Your task to perform on an android device: change the clock style Image 0: 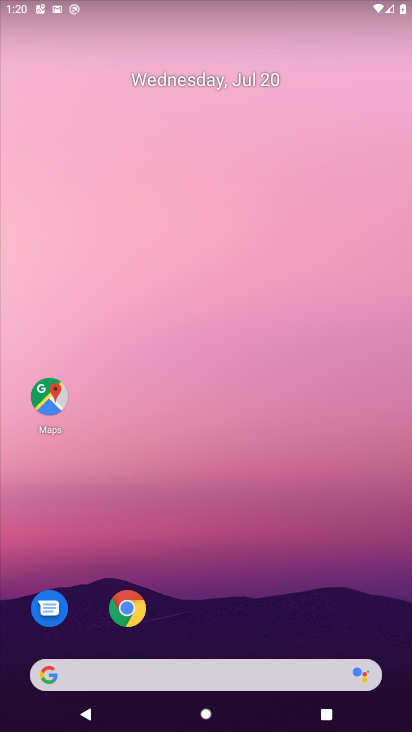
Step 0: drag from (194, 587) to (196, 15)
Your task to perform on an android device: change the clock style Image 1: 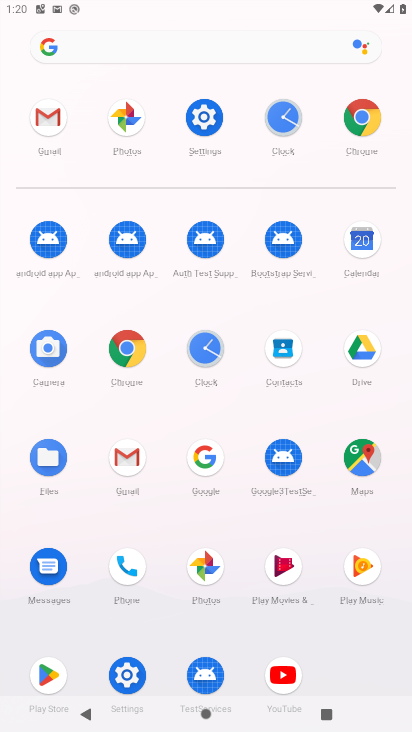
Step 1: click (275, 112)
Your task to perform on an android device: change the clock style Image 2: 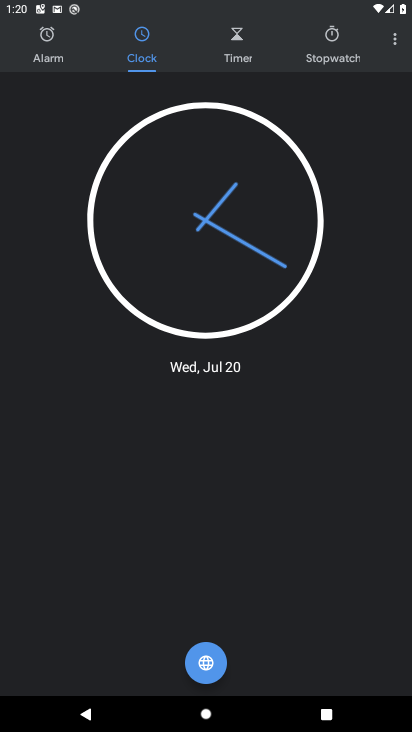
Step 2: click (384, 41)
Your task to perform on an android device: change the clock style Image 3: 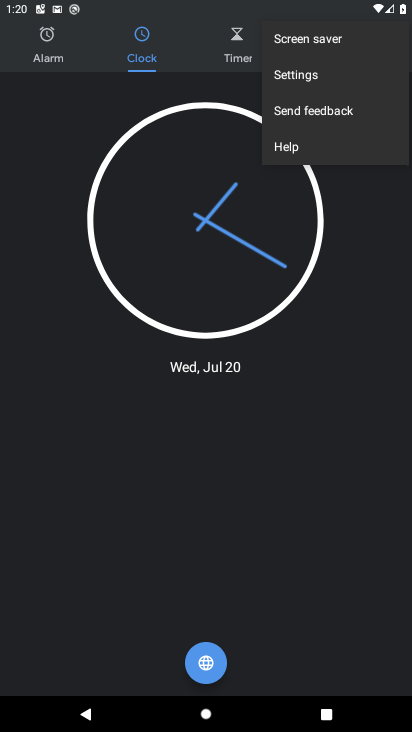
Step 3: click (309, 75)
Your task to perform on an android device: change the clock style Image 4: 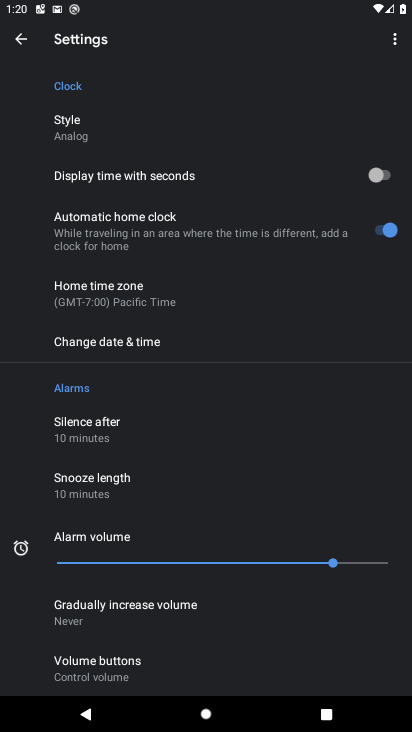
Step 4: click (60, 132)
Your task to perform on an android device: change the clock style Image 5: 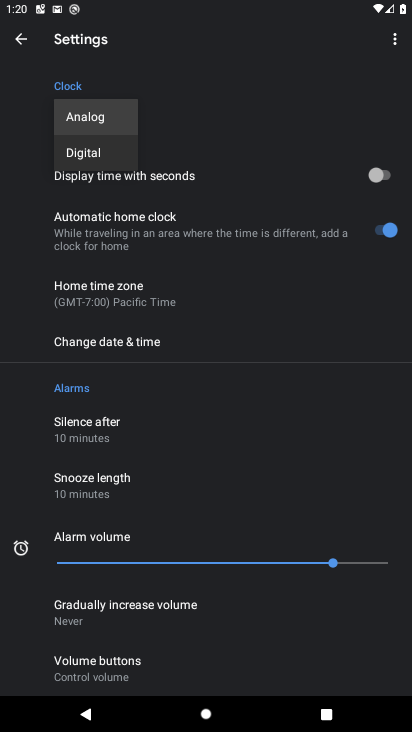
Step 5: click (92, 156)
Your task to perform on an android device: change the clock style Image 6: 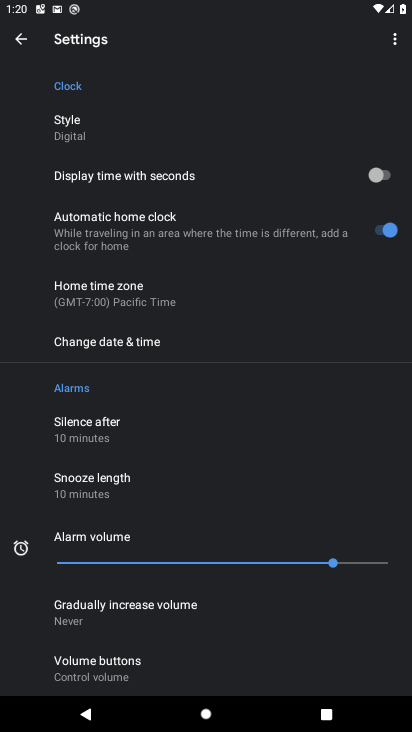
Step 6: task complete